Your task to perform on an android device: turn on sleep mode Image 0: 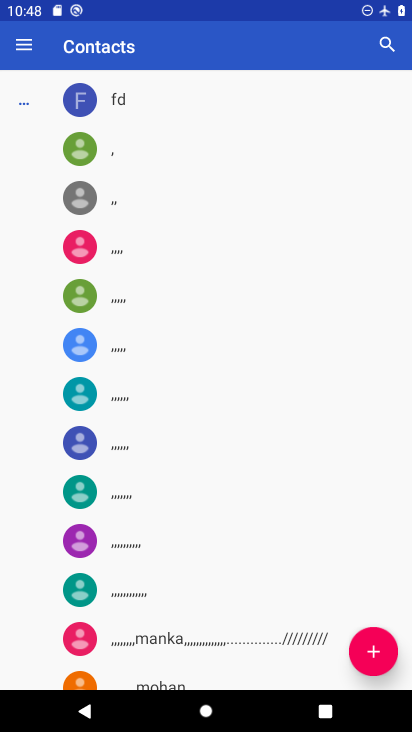
Step 0: press home button
Your task to perform on an android device: turn on sleep mode Image 1: 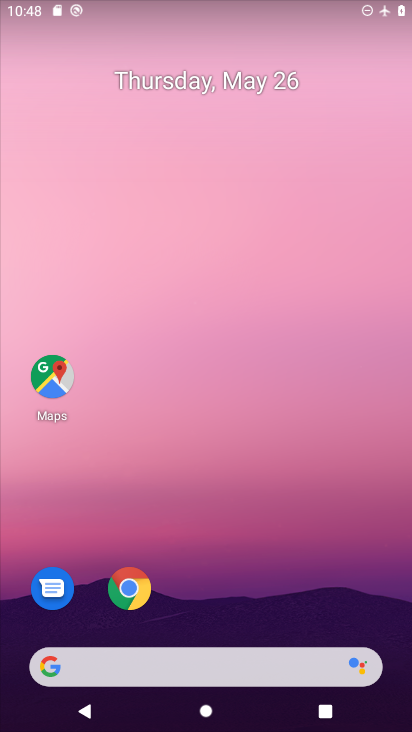
Step 1: drag from (377, 618) to (348, 84)
Your task to perform on an android device: turn on sleep mode Image 2: 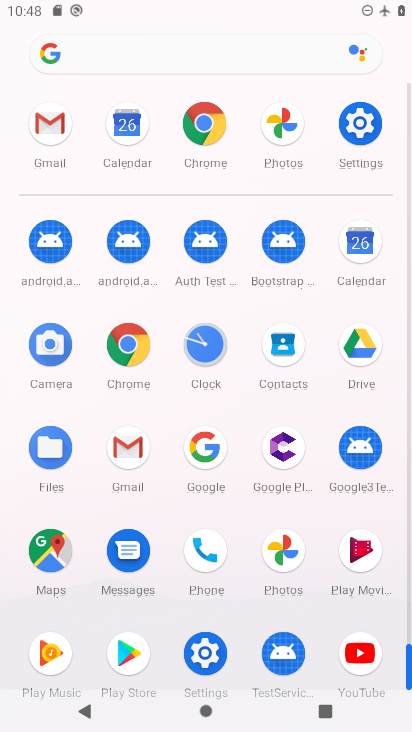
Step 2: click (205, 652)
Your task to perform on an android device: turn on sleep mode Image 3: 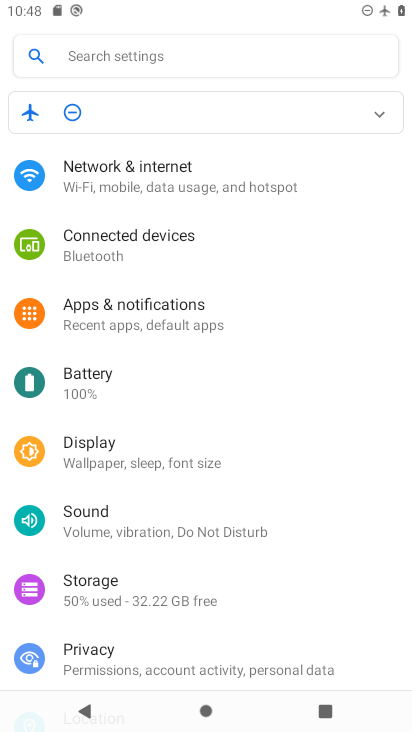
Step 3: click (90, 458)
Your task to perform on an android device: turn on sleep mode Image 4: 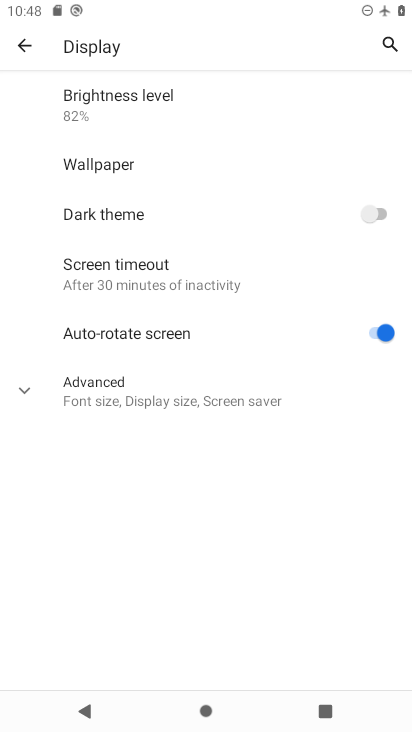
Step 4: click (22, 385)
Your task to perform on an android device: turn on sleep mode Image 5: 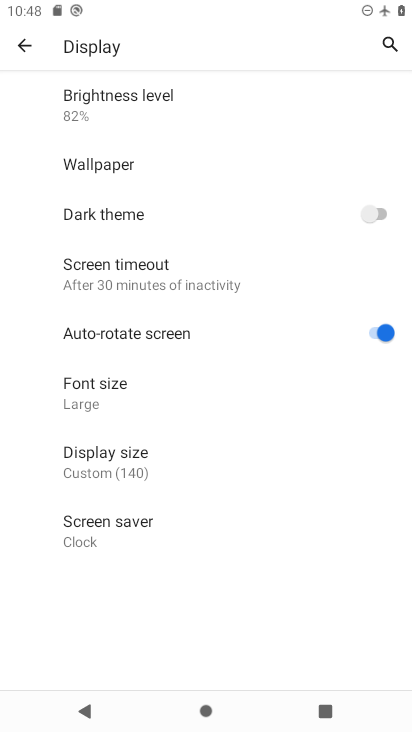
Step 5: task complete